Your task to perform on an android device: toggle priority inbox in the gmail app Image 0: 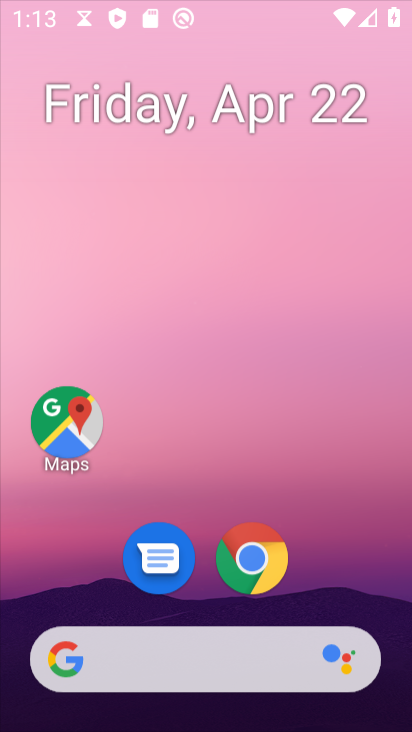
Step 0: click (266, 212)
Your task to perform on an android device: toggle priority inbox in the gmail app Image 1: 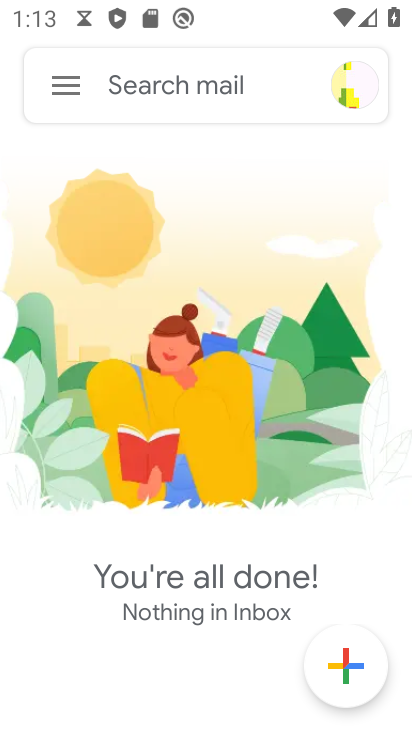
Step 1: click (58, 93)
Your task to perform on an android device: toggle priority inbox in the gmail app Image 2: 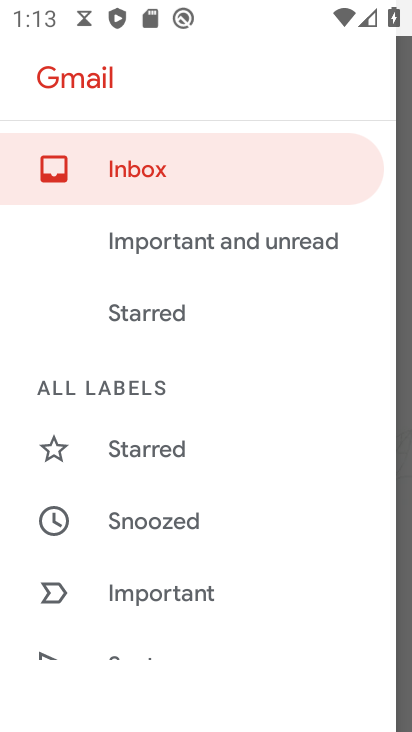
Step 2: drag from (211, 647) to (264, 270)
Your task to perform on an android device: toggle priority inbox in the gmail app Image 3: 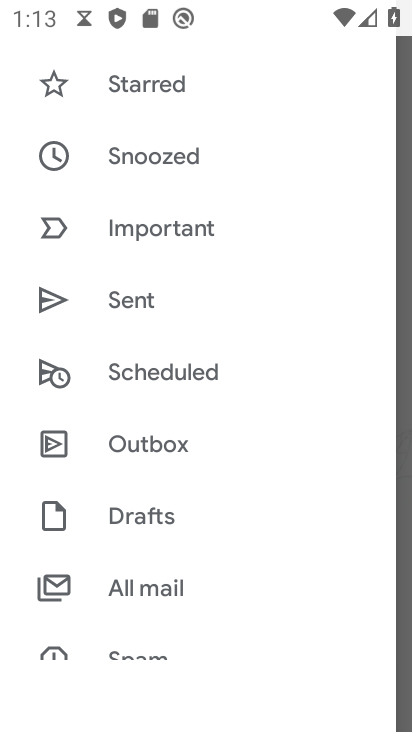
Step 3: drag from (238, 581) to (249, 290)
Your task to perform on an android device: toggle priority inbox in the gmail app Image 4: 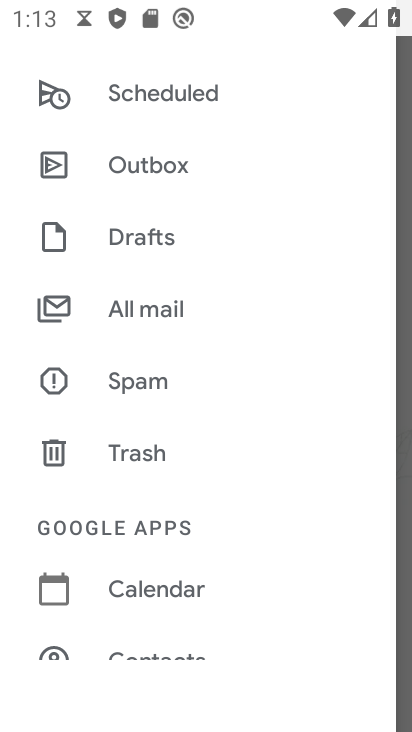
Step 4: drag from (234, 630) to (247, 245)
Your task to perform on an android device: toggle priority inbox in the gmail app Image 5: 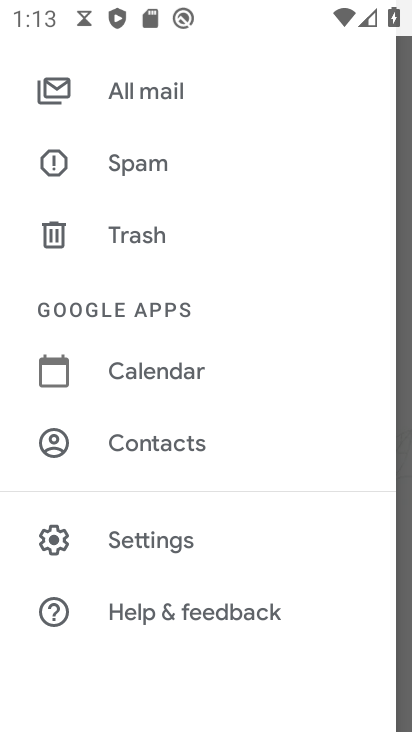
Step 5: click (180, 533)
Your task to perform on an android device: toggle priority inbox in the gmail app Image 6: 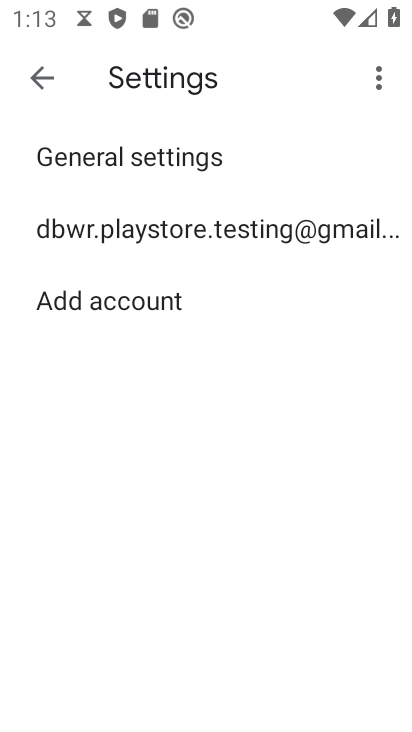
Step 6: click (166, 225)
Your task to perform on an android device: toggle priority inbox in the gmail app Image 7: 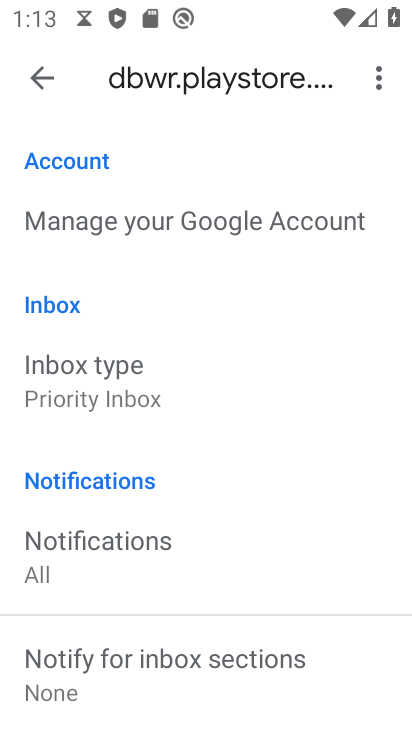
Step 7: click (127, 396)
Your task to perform on an android device: toggle priority inbox in the gmail app Image 8: 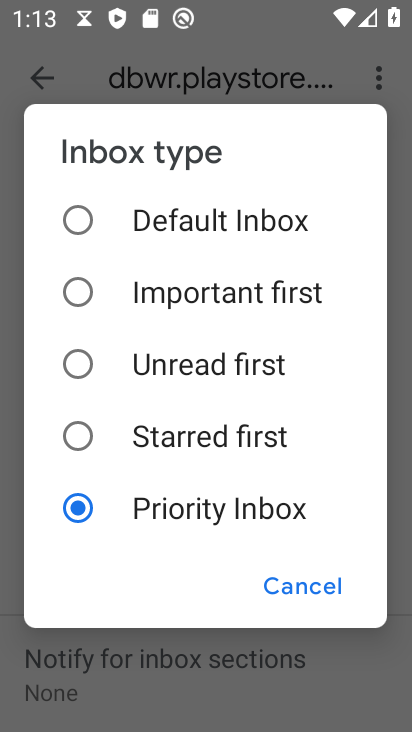
Step 8: click (68, 359)
Your task to perform on an android device: toggle priority inbox in the gmail app Image 9: 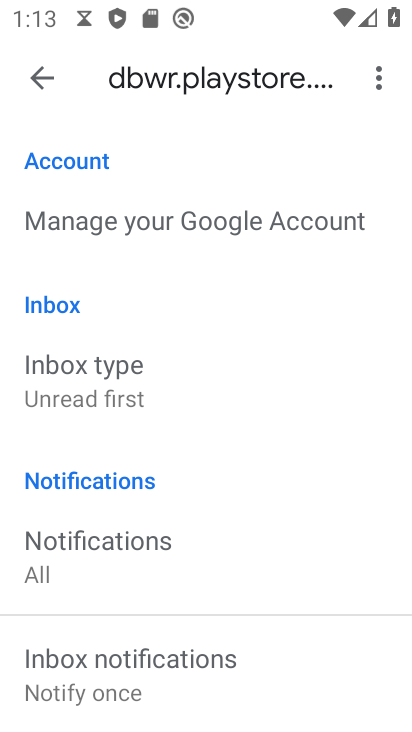
Step 9: task complete